Your task to perform on an android device: uninstall "DoorDash - Food Delivery" Image 0: 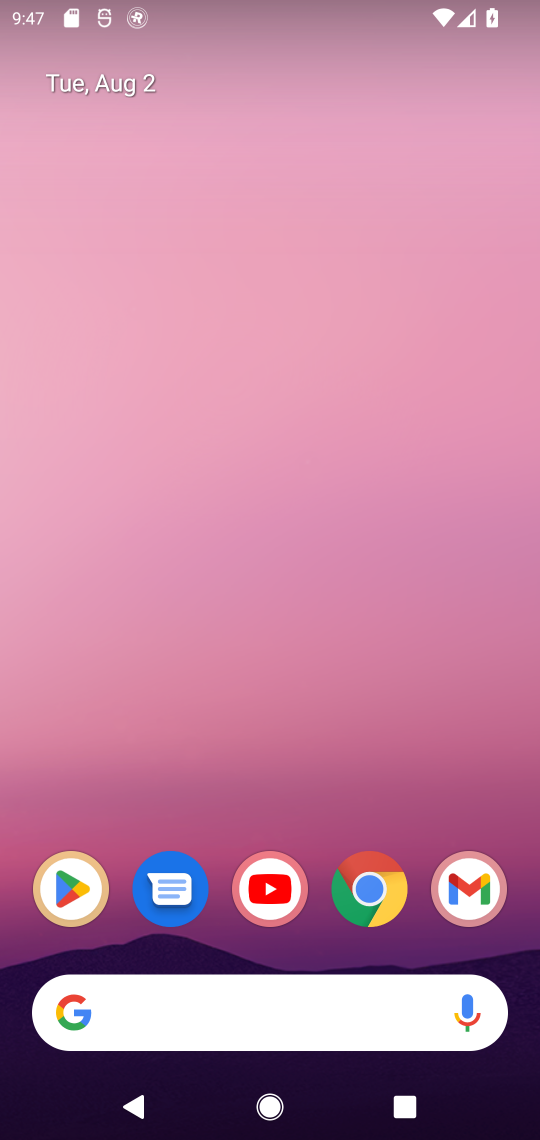
Step 0: click (75, 900)
Your task to perform on an android device: uninstall "DoorDash - Food Delivery" Image 1: 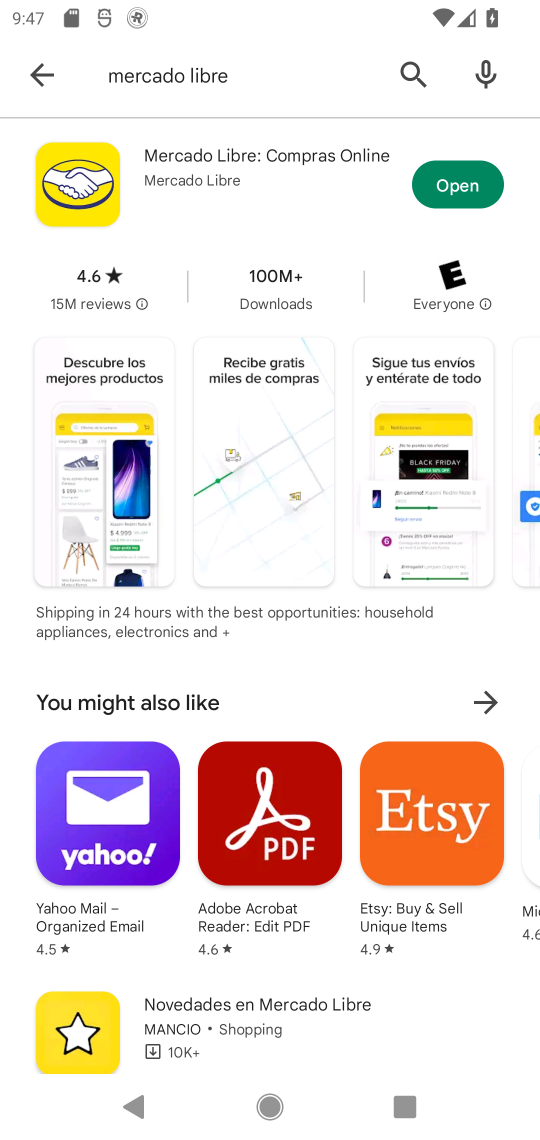
Step 1: click (404, 64)
Your task to perform on an android device: uninstall "DoorDash - Food Delivery" Image 2: 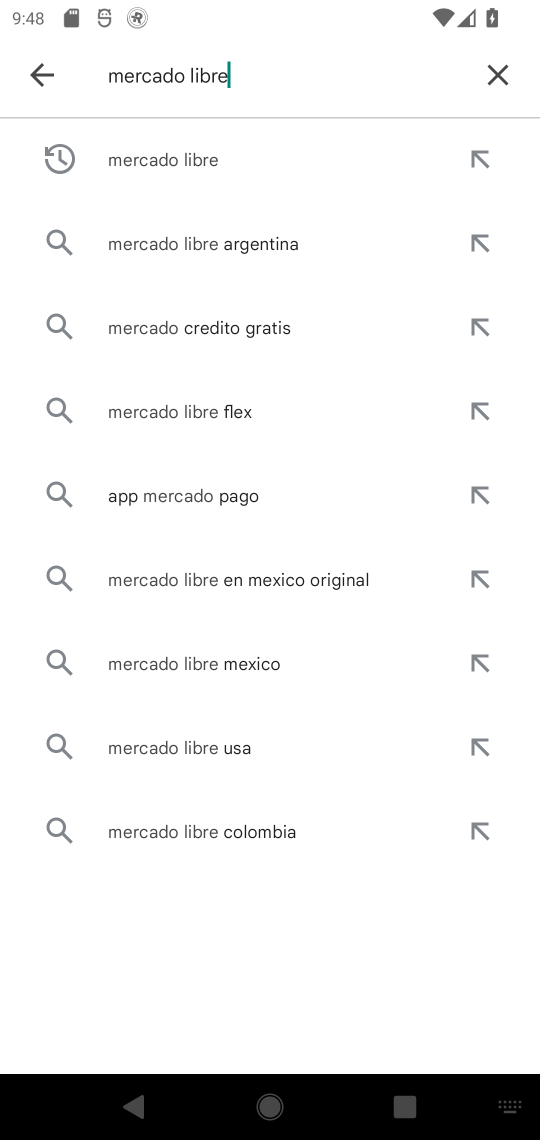
Step 2: click (495, 73)
Your task to perform on an android device: uninstall "DoorDash - Food Delivery" Image 3: 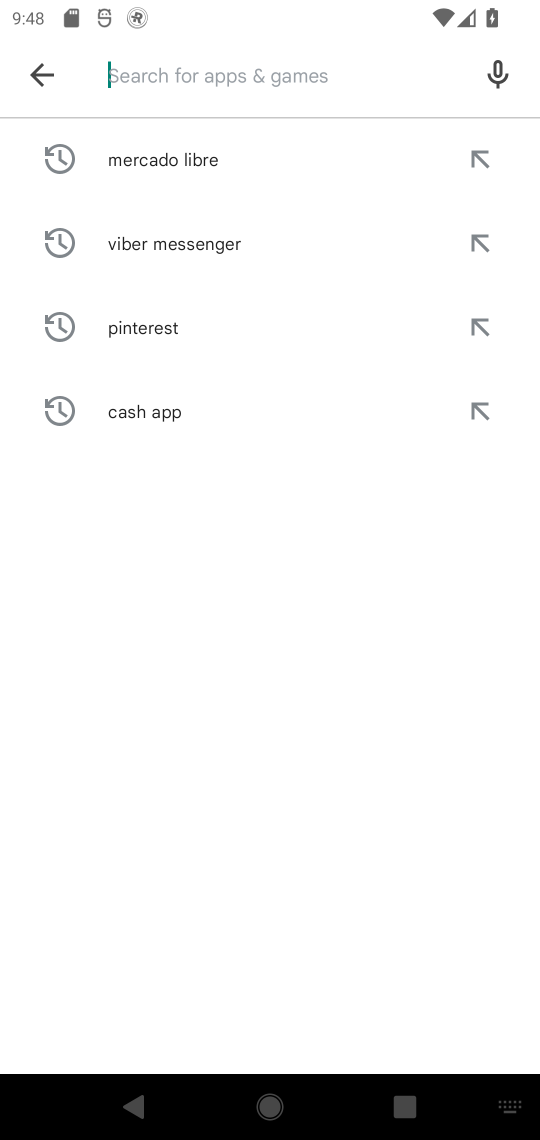
Step 3: type "DoorDash - Food Delivery"
Your task to perform on an android device: uninstall "DoorDash - Food Delivery" Image 4: 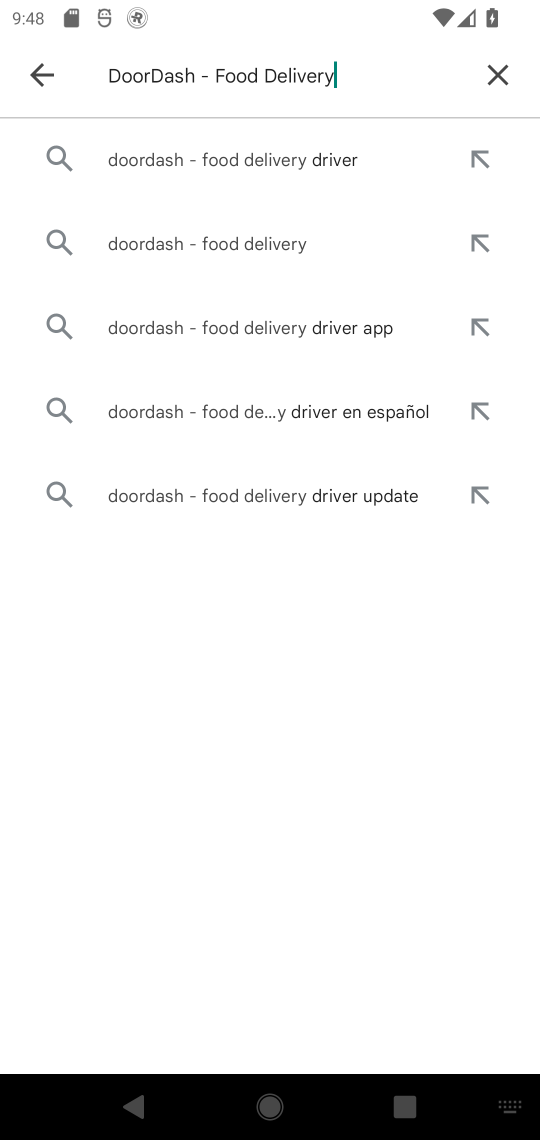
Step 4: click (230, 155)
Your task to perform on an android device: uninstall "DoorDash - Food Delivery" Image 5: 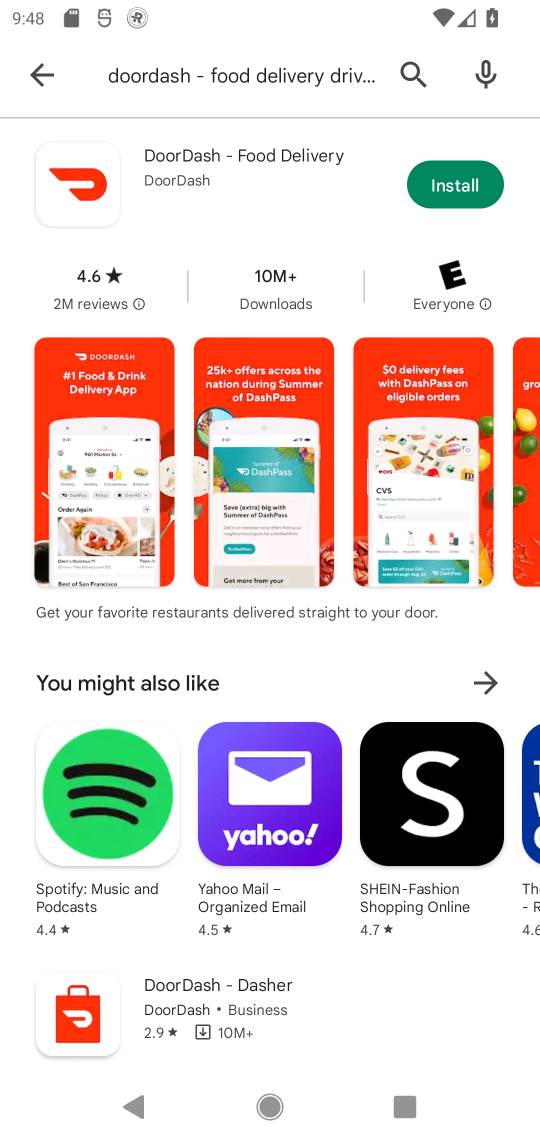
Step 5: task complete